Your task to perform on an android device: Show me recent news Image 0: 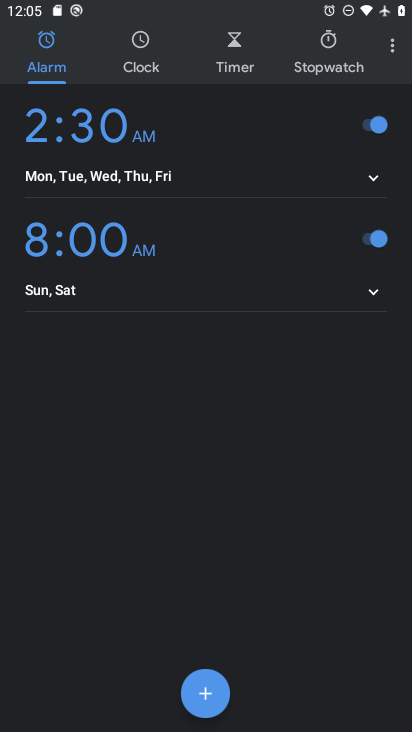
Step 0: press home button
Your task to perform on an android device: Show me recent news Image 1: 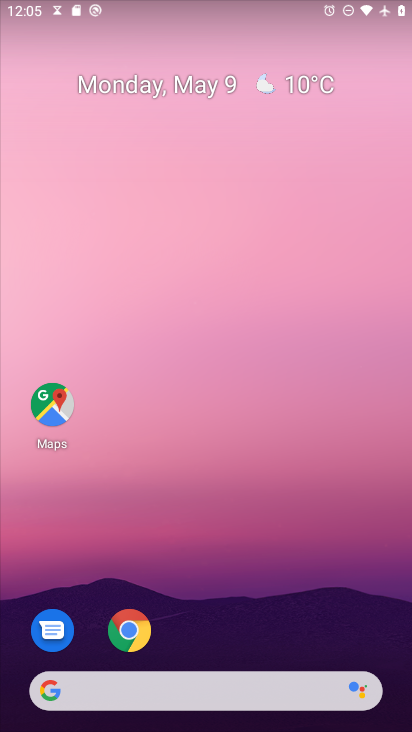
Step 1: click (50, 693)
Your task to perform on an android device: Show me recent news Image 2: 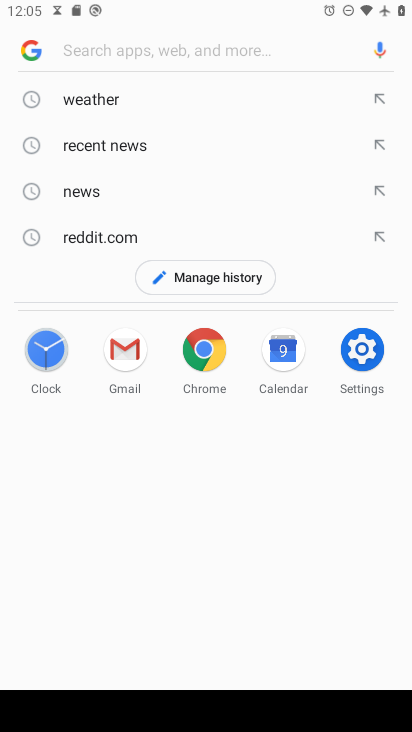
Step 2: click (114, 148)
Your task to perform on an android device: Show me recent news Image 3: 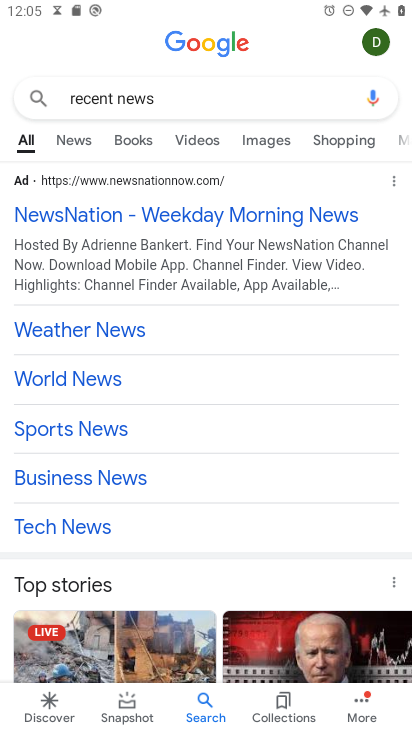
Step 3: task complete